Your task to perform on an android device: What's the weather going to be tomorrow? Image 0: 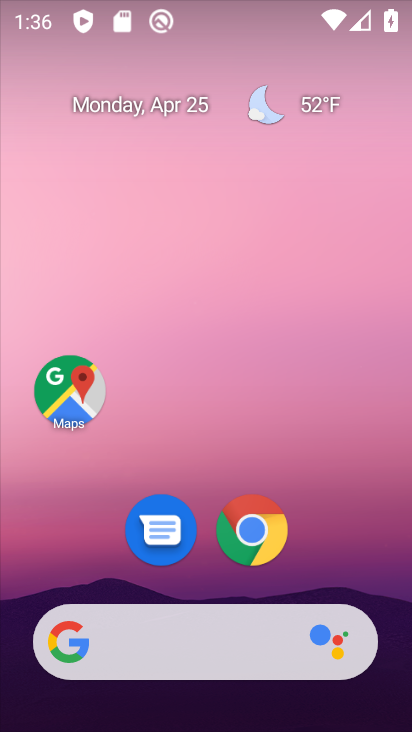
Step 0: drag from (369, 545) to (381, 63)
Your task to perform on an android device: What's the weather going to be tomorrow? Image 1: 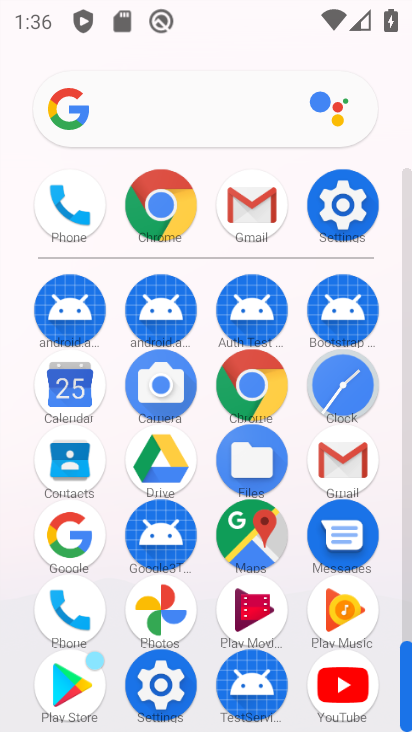
Step 1: click (248, 383)
Your task to perform on an android device: What's the weather going to be tomorrow? Image 2: 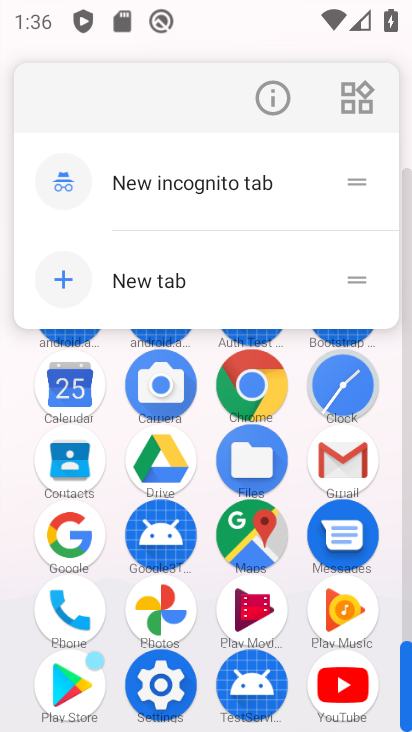
Step 2: click (246, 382)
Your task to perform on an android device: What's the weather going to be tomorrow? Image 3: 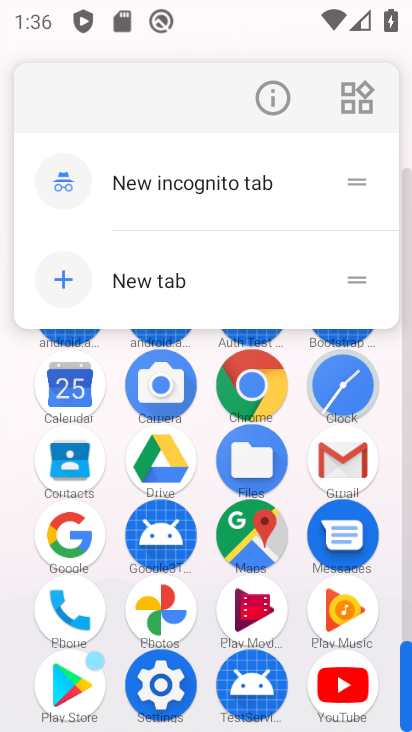
Step 3: click (233, 383)
Your task to perform on an android device: What's the weather going to be tomorrow? Image 4: 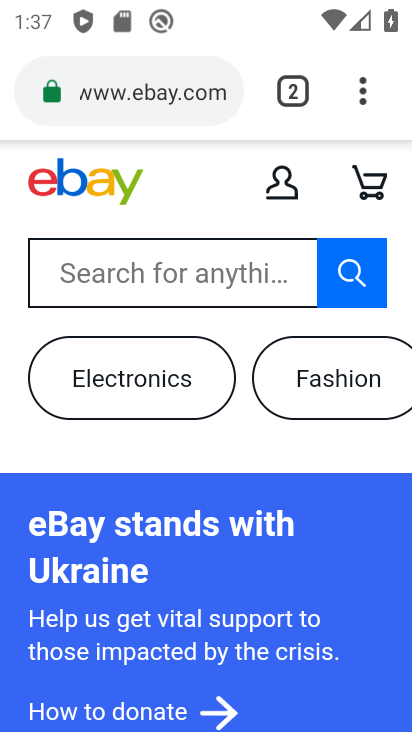
Step 4: click (278, 93)
Your task to perform on an android device: What's the weather going to be tomorrow? Image 5: 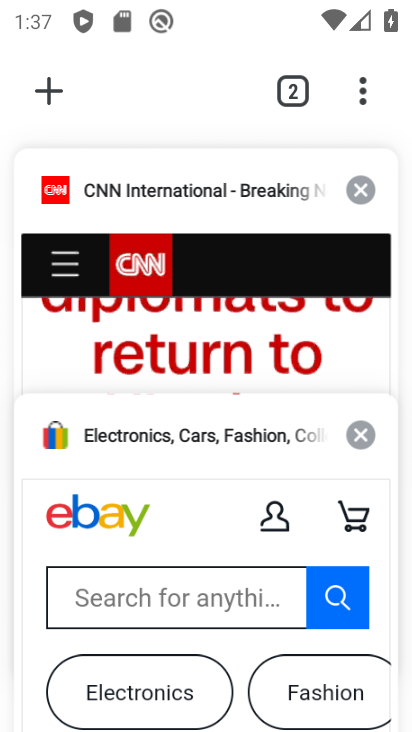
Step 5: click (47, 89)
Your task to perform on an android device: What's the weather going to be tomorrow? Image 6: 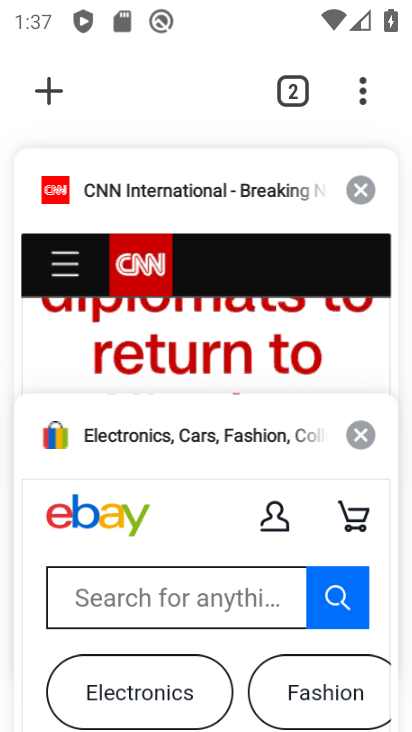
Step 6: click (61, 85)
Your task to perform on an android device: What's the weather going to be tomorrow? Image 7: 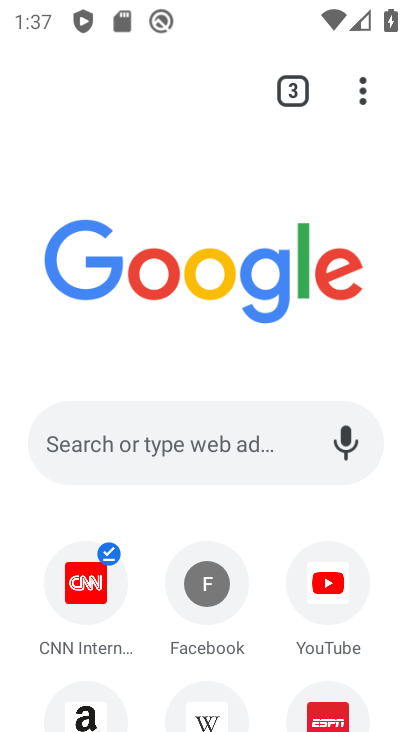
Step 7: click (169, 455)
Your task to perform on an android device: What's the weather going to be tomorrow? Image 8: 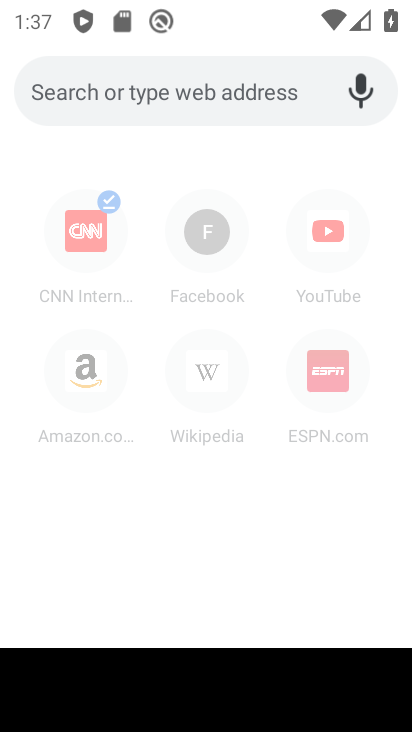
Step 8: type "what's the weather going to be tomorrow"
Your task to perform on an android device: What's the weather going to be tomorrow? Image 9: 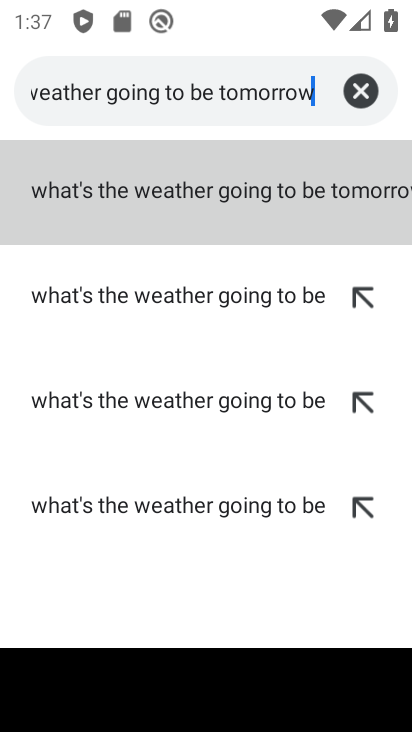
Step 9: click (116, 196)
Your task to perform on an android device: What's the weather going to be tomorrow? Image 10: 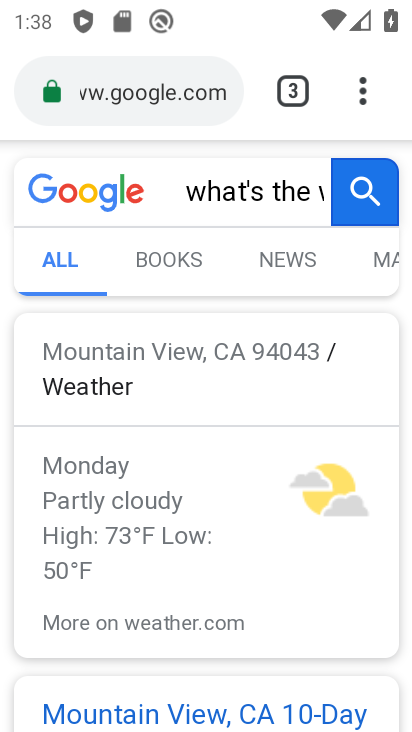
Step 10: drag from (186, 584) to (186, 338)
Your task to perform on an android device: What's the weather going to be tomorrow? Image 11: 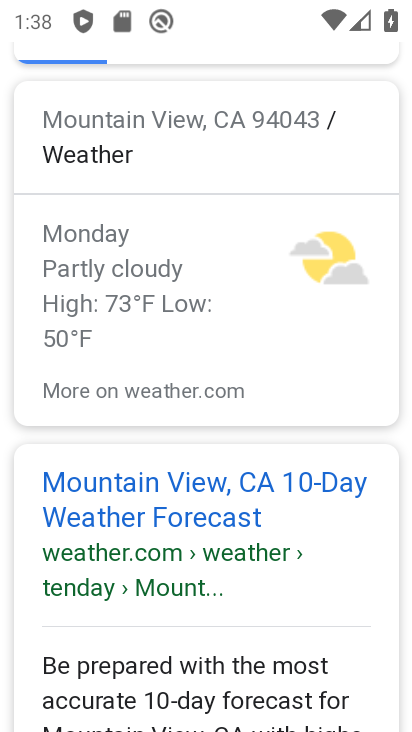
Step 11: drag from (331, 592) to (323, 338)
Your task to perform on an android device: What's the weather going to be tomorrow? Image 12: 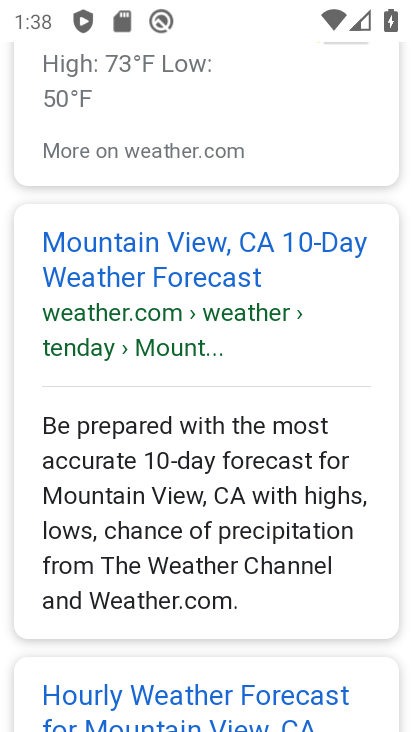
Step 12: drag from (236, 171) to (240, 503)
Your task to perform on an android device: What's the weather going to be tomorrow? Image 13: 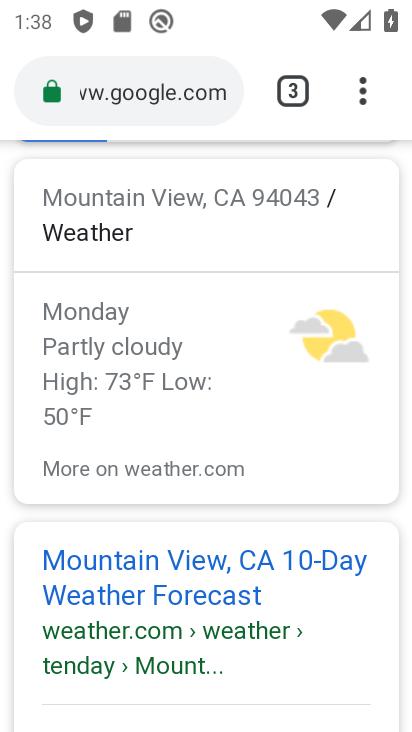
Step 13: click (193, 555)
Your task to perform on an android device: What's the weather going to be tomorrow? Image 14: 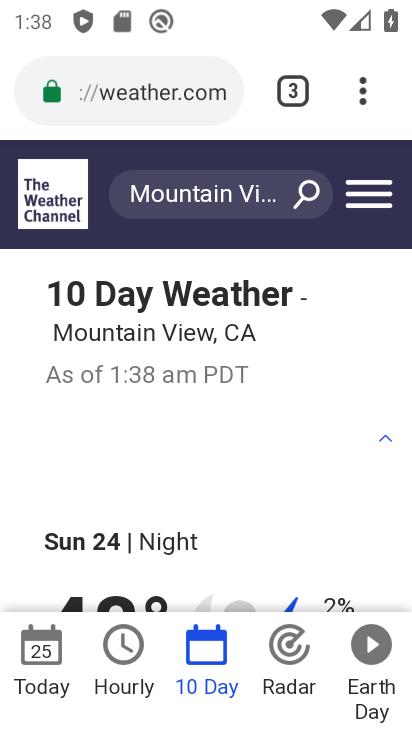
Step 14: task complete